Your task to perform on an android device: When is my next meeting? Image 0: 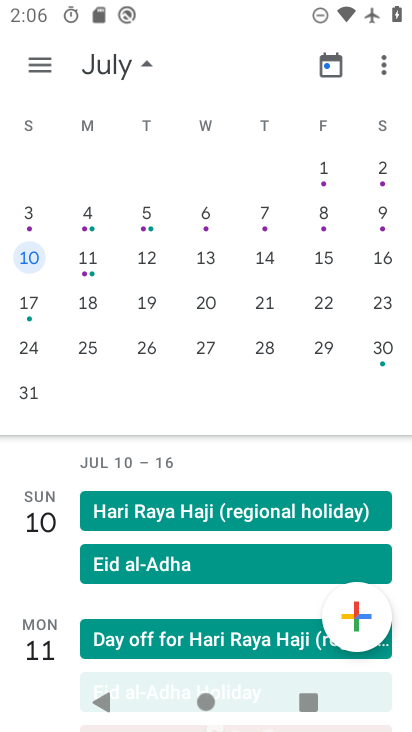
Step 0: press home button
Your task to perform on an android device: When is my next meeting? Image 1: 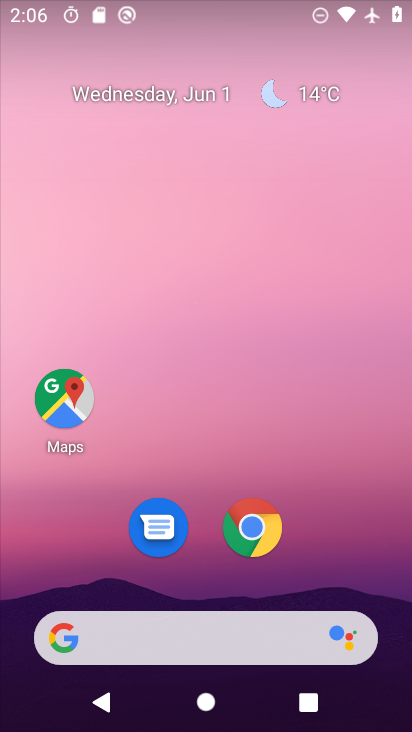
Step 1: drag from (165, 611) to (234, 153)
Your task to perform on an android device: When is my next meeting? Image 2: 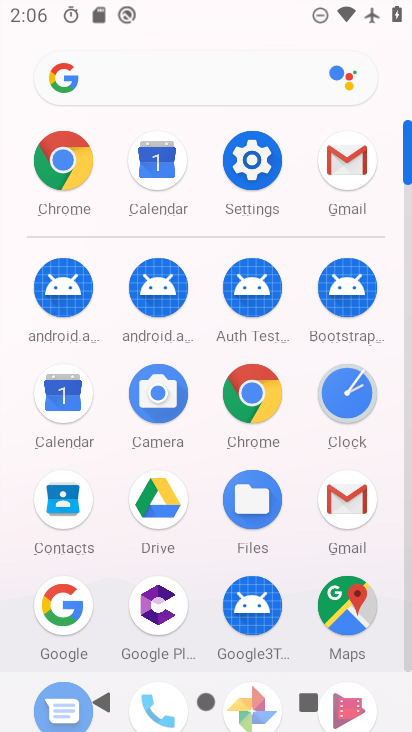
Step 2: click (48, 402)
Your task to perform on an android device: When is my next meeting? Image 3: 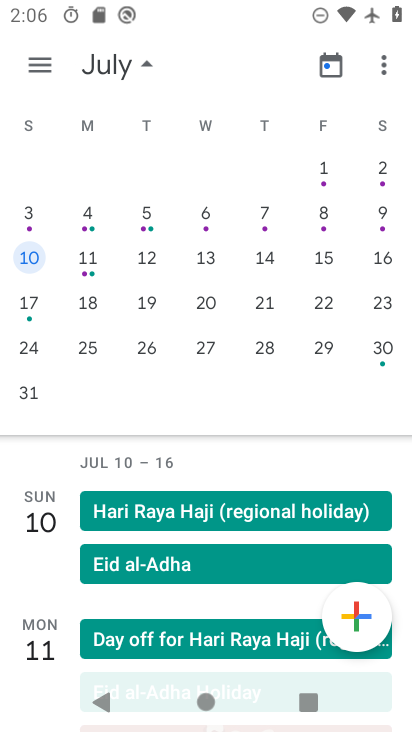
Step 3: click (324, 183)
Your task to perform on an android device: When is my next meeting? Image 4: 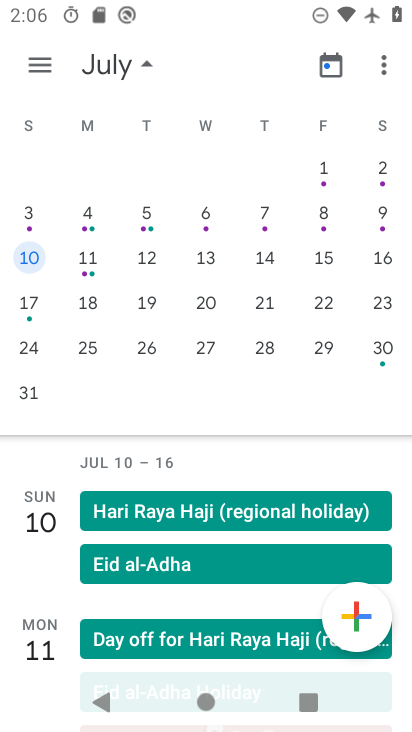
Step 4: click (324, 183)
Your task to perform on an android device: When is my next meeting? Image 5: 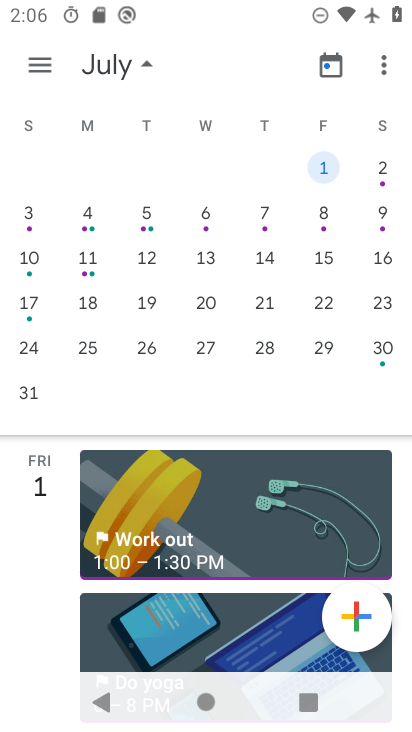
Step 5: drag from (51, 293) to (410, 279)
Your task to perform on an android device: When is my next meeting? Image 6: 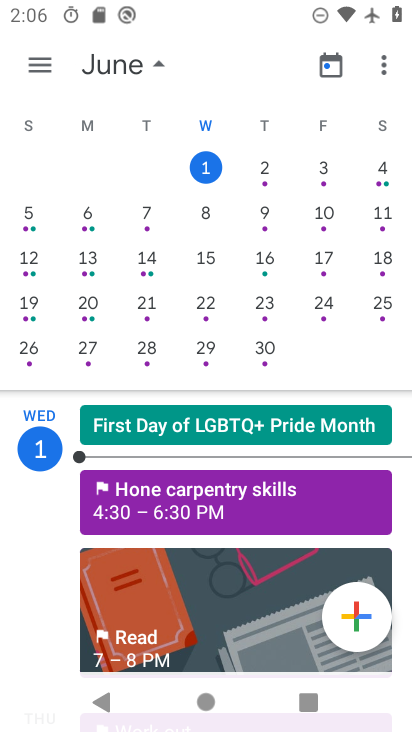
Step 6: click (40, 64)
Your task to perform on an android device: When is my next meeting? Image 7: 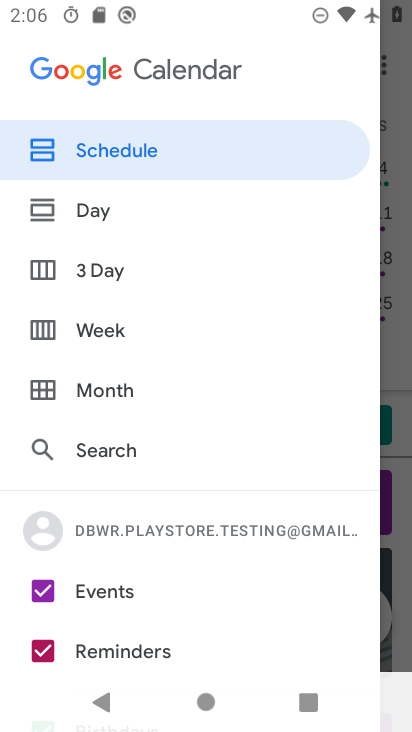
Step 7: drag from (157, 521) to (232, 347)
Your task to perform on an android device: When is my next meeting? Image 8: 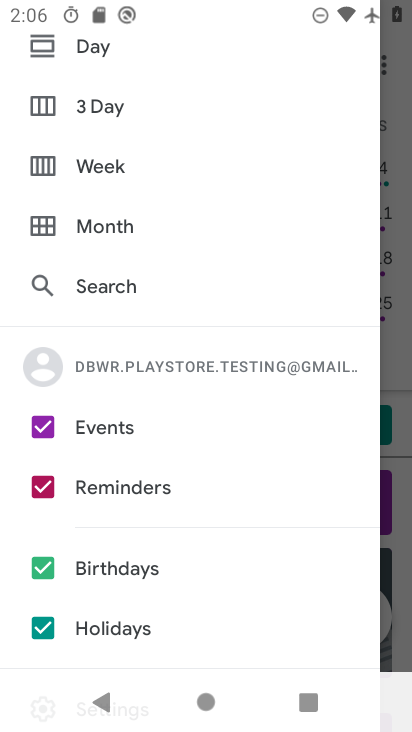
Step 8: click (41, 557)
Your task to perform on an android device: When is my next meeting? Image 9: 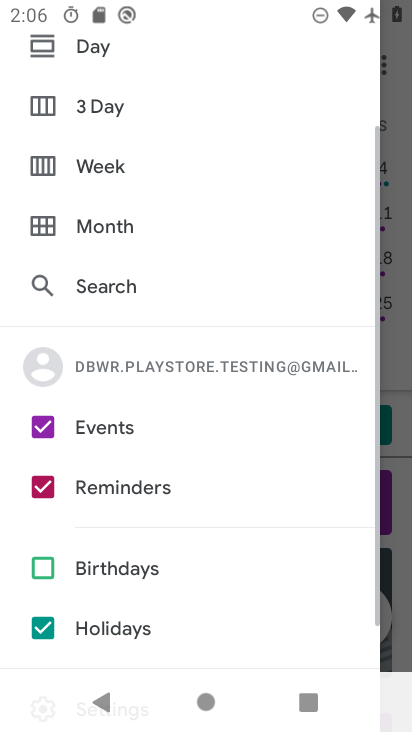
Step 9: click (50, 631)
Your task to perform on an android device: When is my next meeting? Image 10: 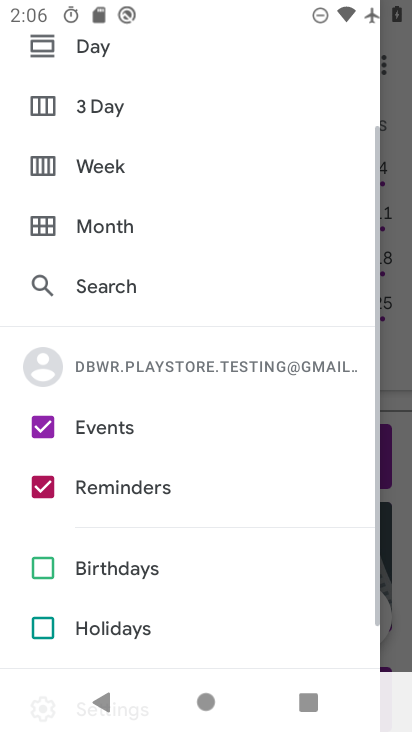
Step 10: click (398, 385)
Your task to perform on an android device: When is my next meeting? Image 11: 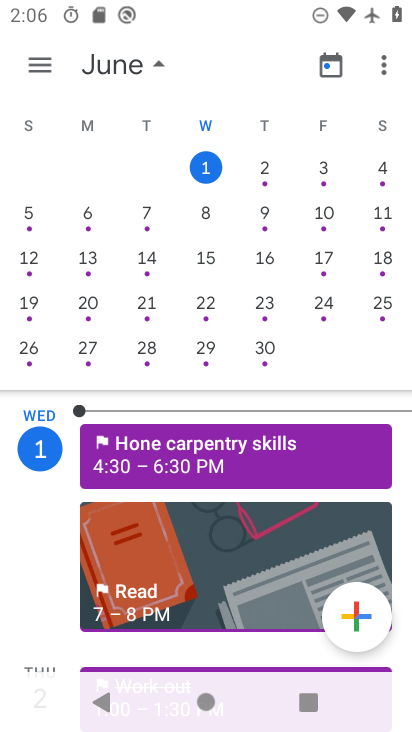
Step 11: task complete